Your task to perform on an android device: open app "WhatsApp Messenger" (install if not already installed) Image 0: 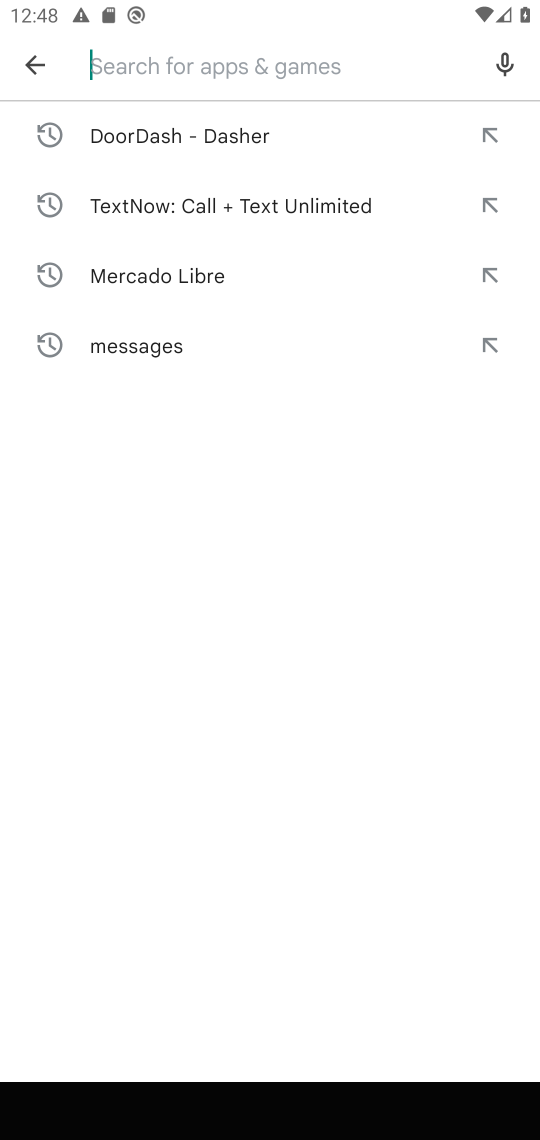
Step 0: press home button
Your task to perform on an android device: open app "WhatsApp Messenger" (install if not already installed) Image 1: 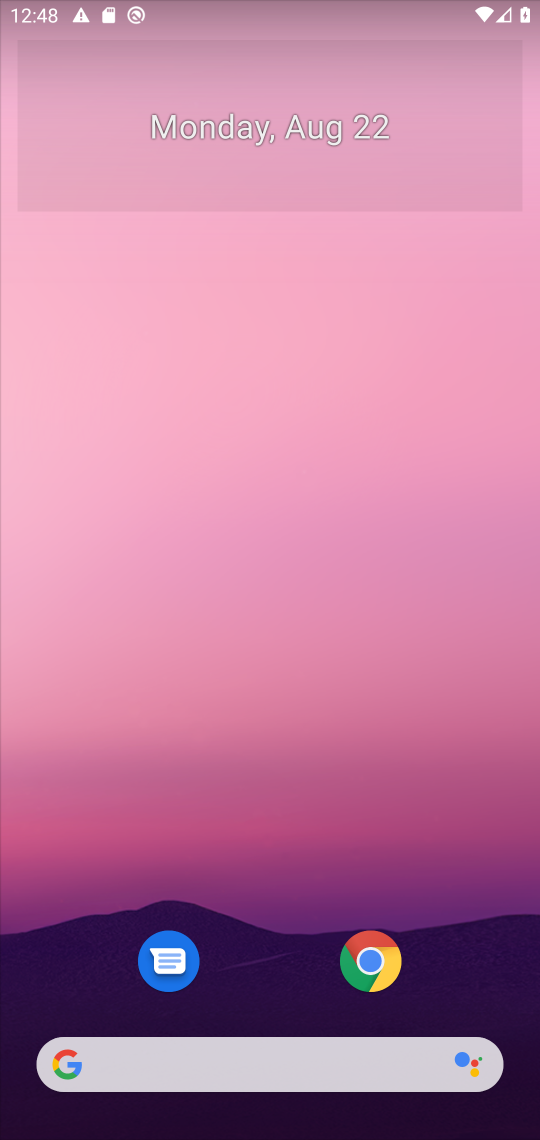
Step 1: press home button
Your task to perform on an android device: open app "WhatsApp Messenger" (install if not already installed) Image 2: 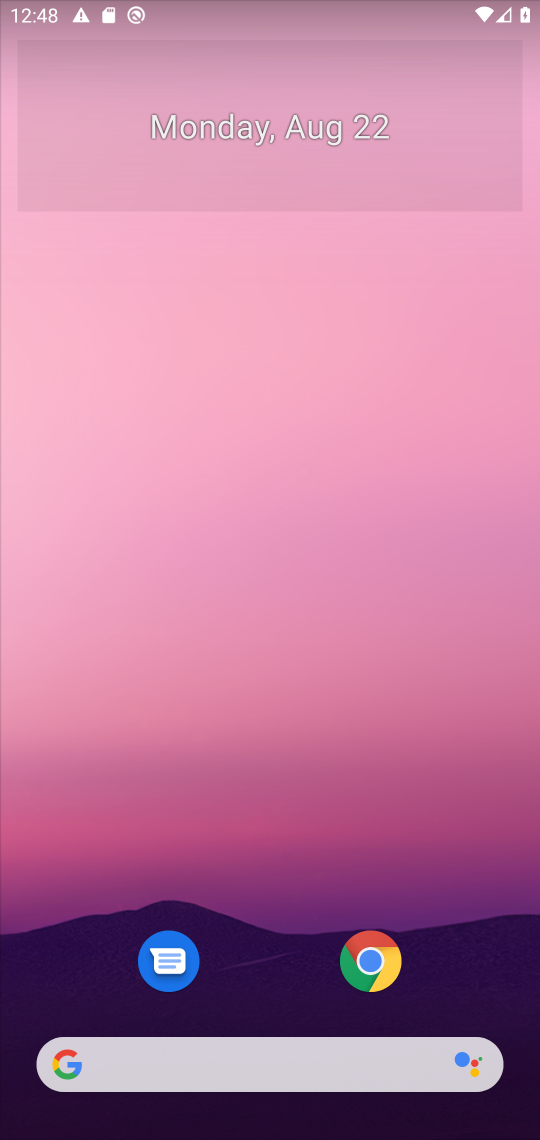
Step 2: drag from (461, 908) to (502, 86)
Your task to perform on an android device: open app "WhatsApp Messenger" (install if not already installed) Image 3: 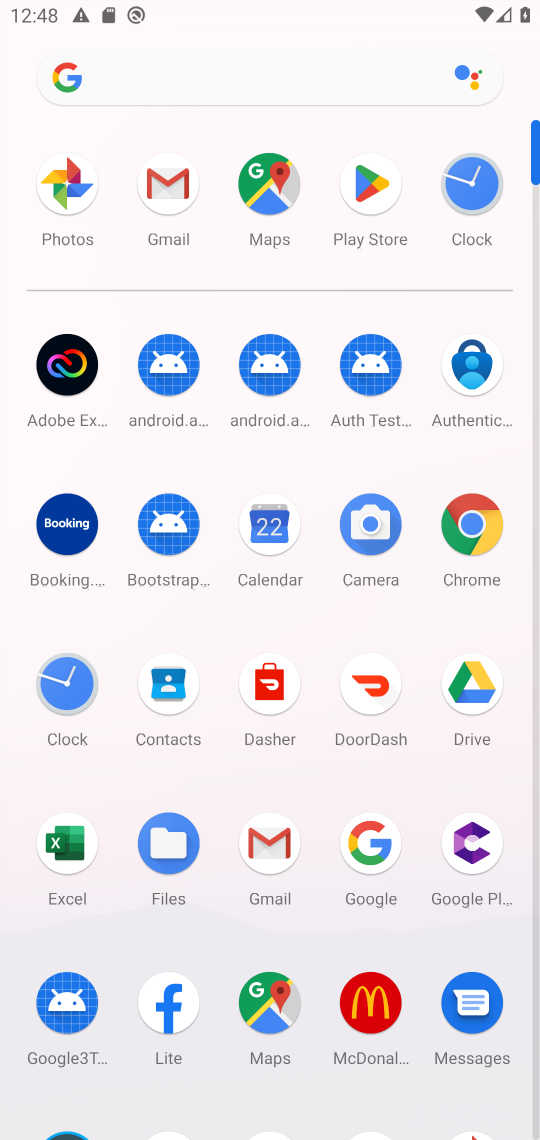
Step 3: click (376, 172)
Your task to perform on an android device: open app "WhatsApp Messenger" (install if not already installed) Image 4: 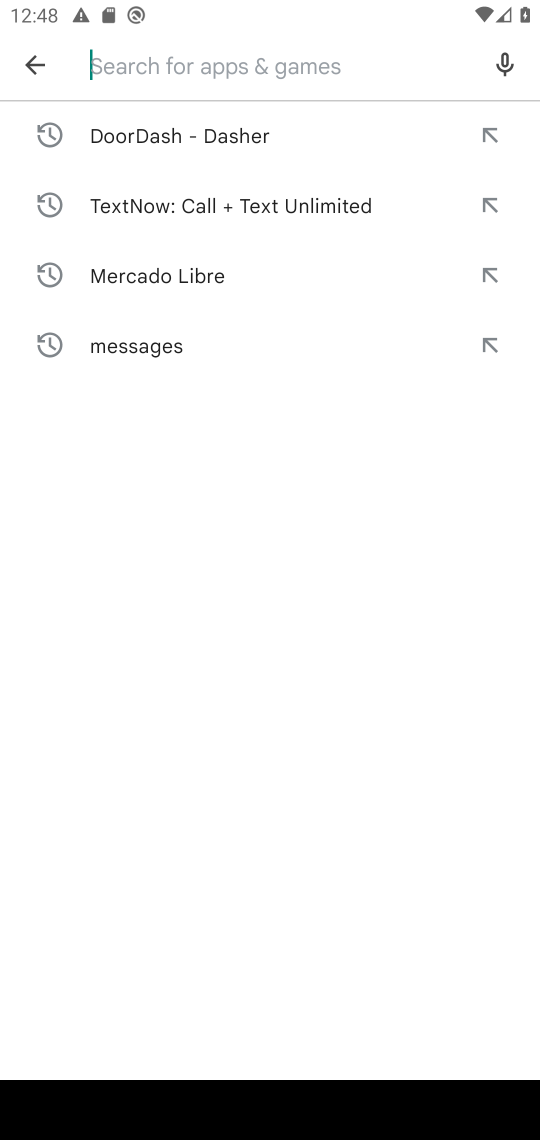
Step 4: type "WhatsApp Messenger"
Your task to perform on an android device: open app "WhatsApp Messenger" (install if not already installed) Image 5: 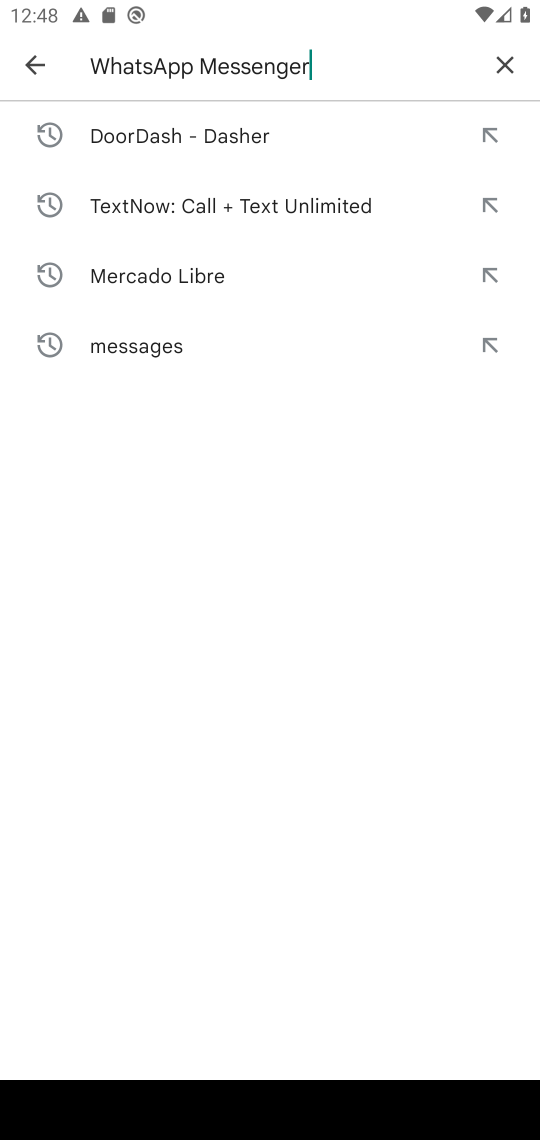
Step 5: press enter
Your task to perform on an android device: open app "WhatsApp Messenger" (install if not already installed) Image 6: 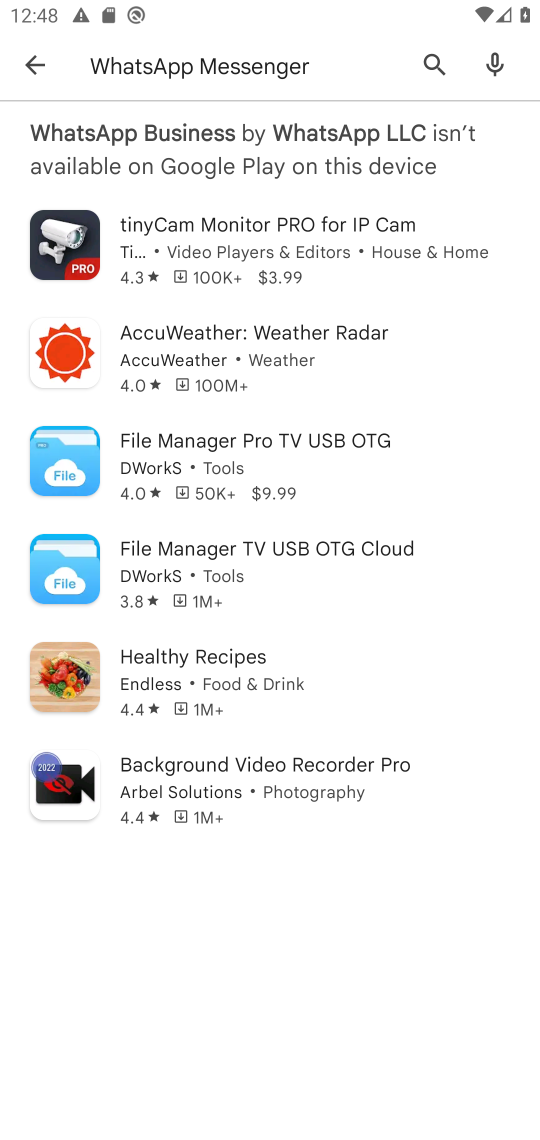
Step 6: task complete